Your task to perform on an android device: turn off airplane mode Image 0: 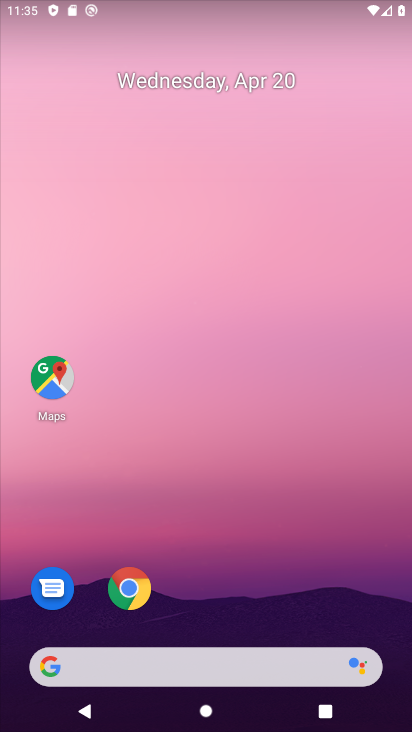
Step 0: drag from (186, 669) to (346, 57)
Your task to perform on an android device: turn off airplane mode Image 1: 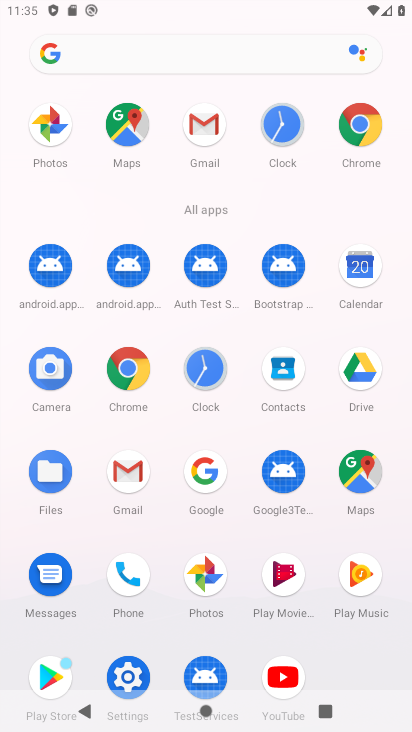
Step 1: click (126, 680)
Your task to perform on an android device: turn off airplane mode Image 2: 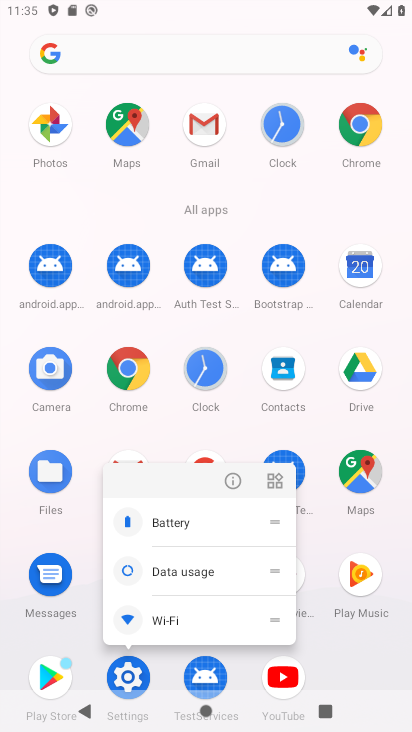
Step 2: click (130, 671)
Your task to perform on an android device: turn off airplane mode Image 3: 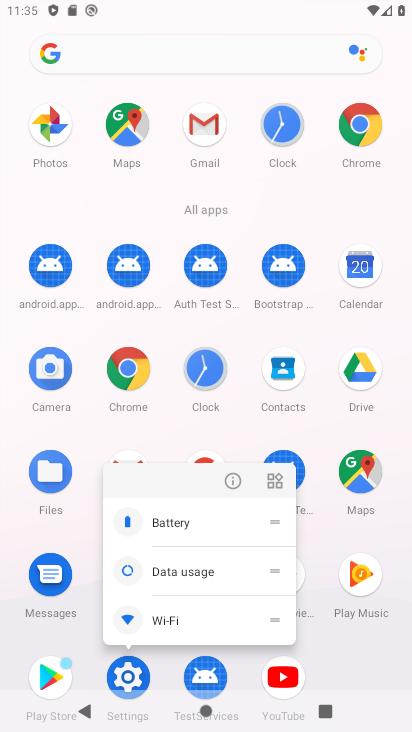
Step 3: click (126, 672)
Your task to perform on an android device: turn off airplane mode Image 4: 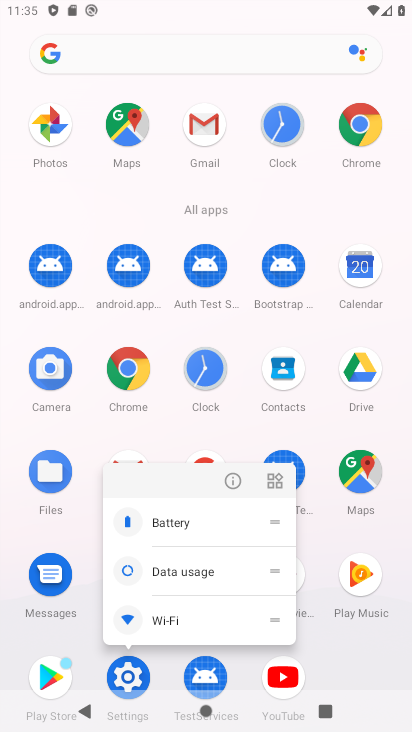
Step 4: click (128, 676)
Your task to perform on an android device: turn off airplane mode Image 5: 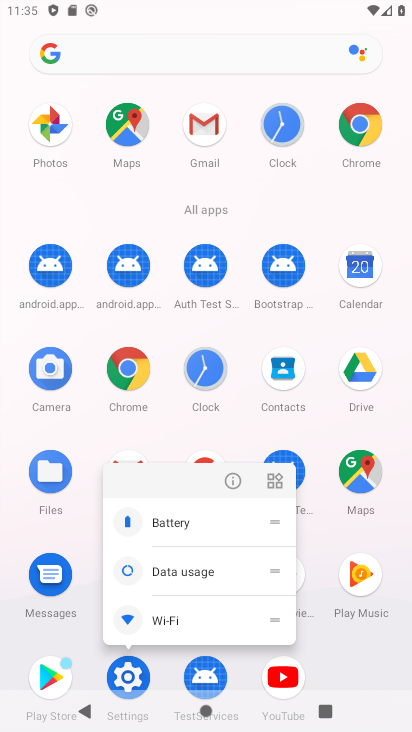
Step 5: drag from (79, 602) to (251, 184)
Your task to perform on an android device: turn off airplane mode Image 6: 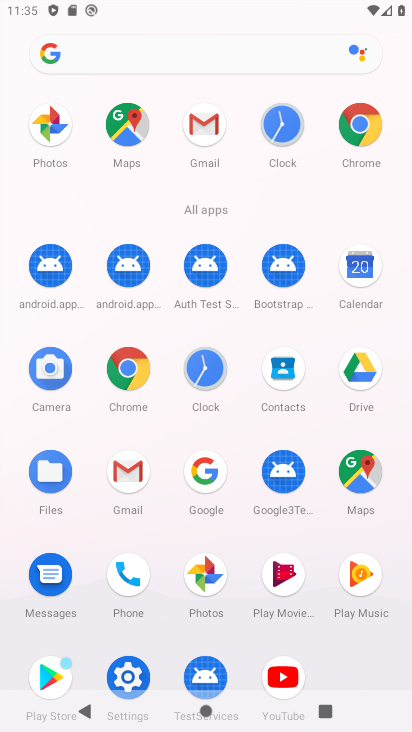
Step 6: click (128, 675)
Your task to perform on an android device: turn off airplane mode Image 7: 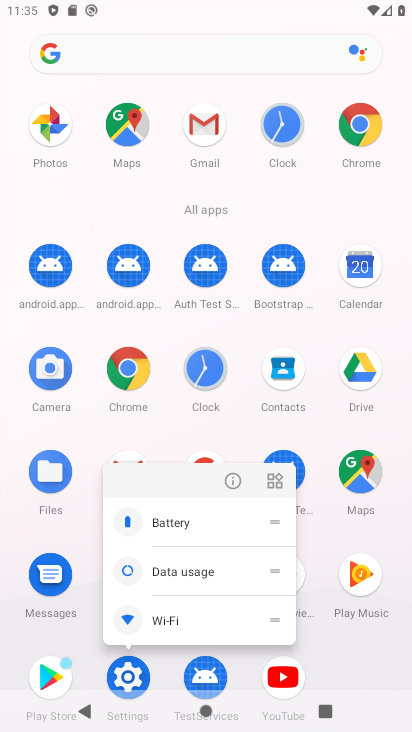
Step 7: click (128, 675)
Your task to perform on an android device: turn off airplane mode Image 8: 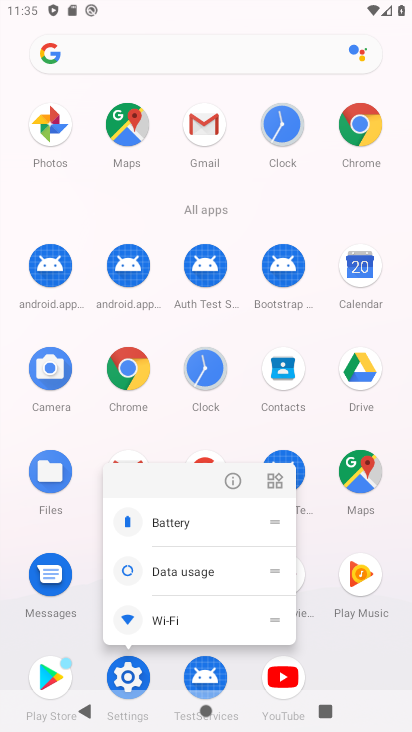
Step 8: click (128, 675)
Your task to perform on an android device: turn off airplane mode Image 9: 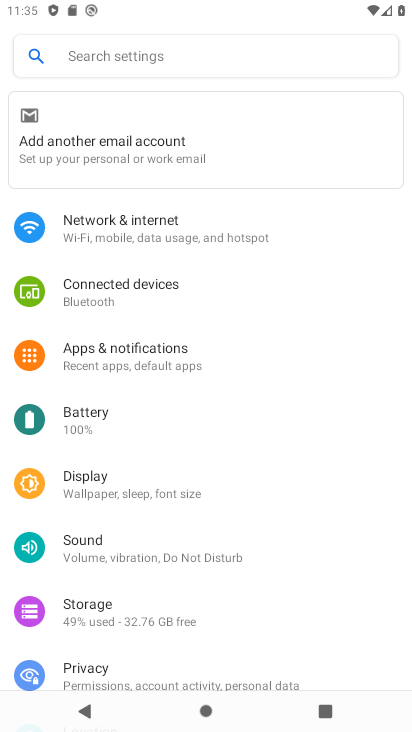
Step 9: click (153, 220)
Your task to perform on an android device: turn off airplane mode Image 10: 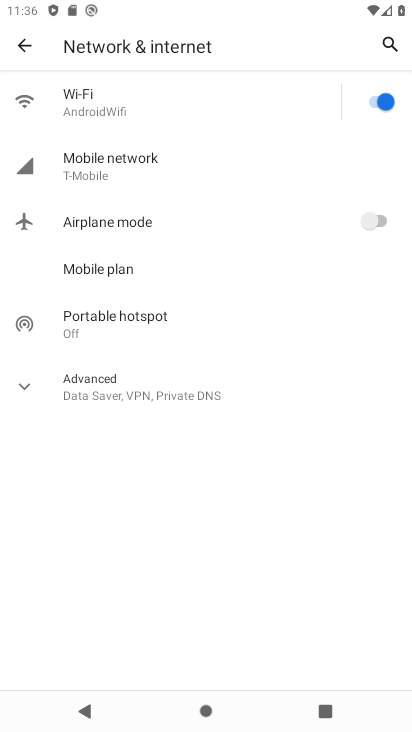
Step 10: task complete